Your task to perform on an android device: change timer sound Image 0: 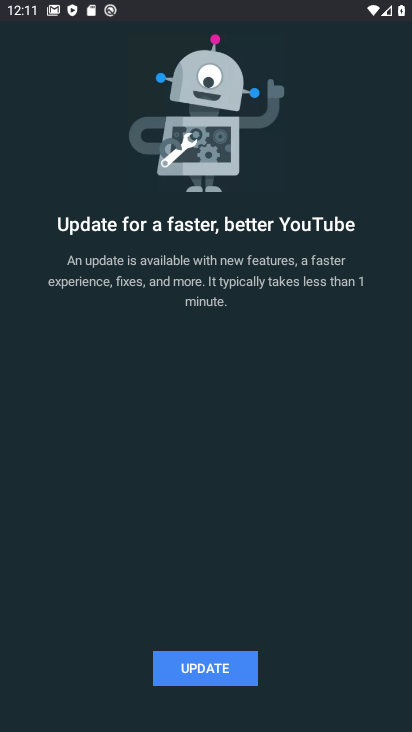
Step 0: press home button
Your task to perform on an android device: change timer sound Image 1: 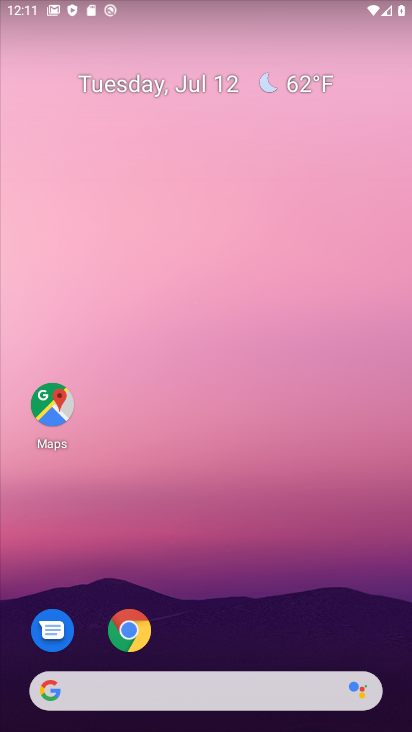
Step 1: drag from (164, 435) to (164, 190)
Your task to perform on an android device: change timer sound Image 2: 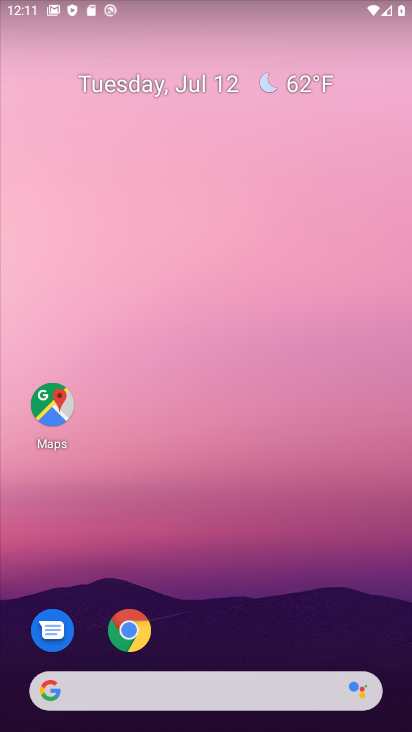
Step 2: drag from (263, 519) to (246, 160)
Your task to perform on an android device: change timer sound Image 3: 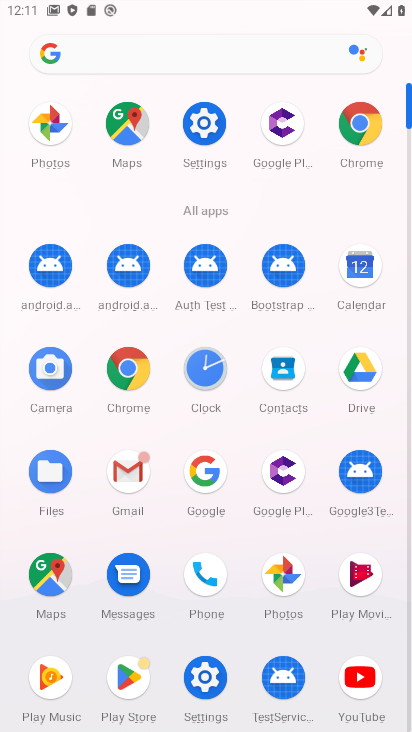
Step 3: click (208, 380)
Your task to perform on an android device: change timer sound Image 4: 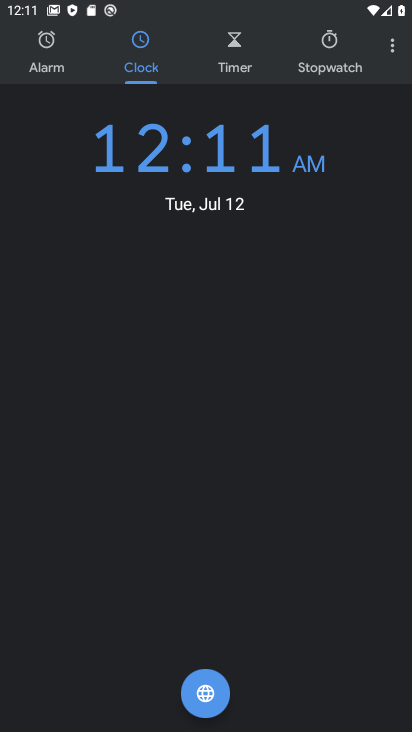
Step 4: click (393, 43)
Your task to perform on an android device: change timer sound Image 5: 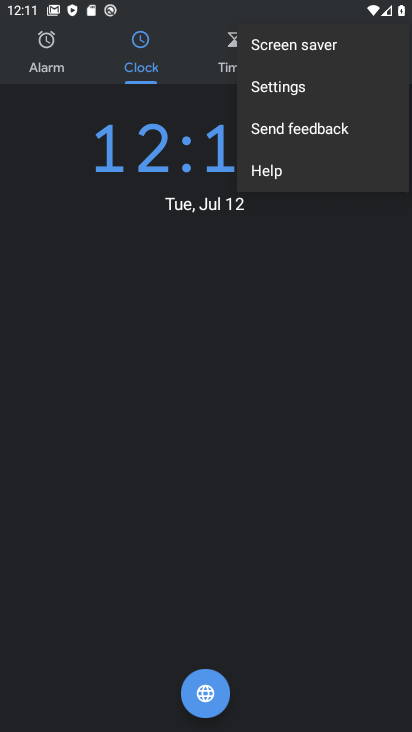
Step 5: click (290, 91)
Your task to perform on an android device: change timer sound Image 6: 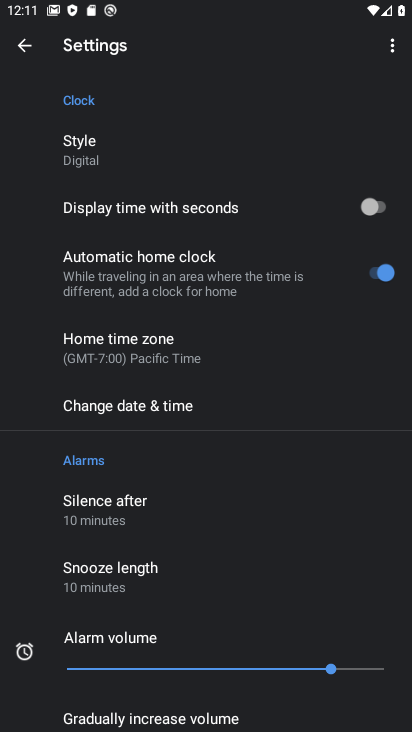
Step 6: drag from (183, 570) to (200, 292)
Your task to perform on an android device: change timer sound Image 7: 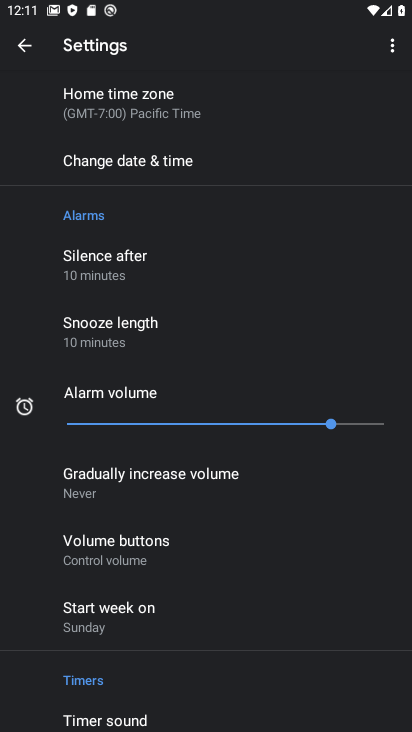
Step 7: click (120, 706)
Your task to perform on an android device: change timer sound Image 8: 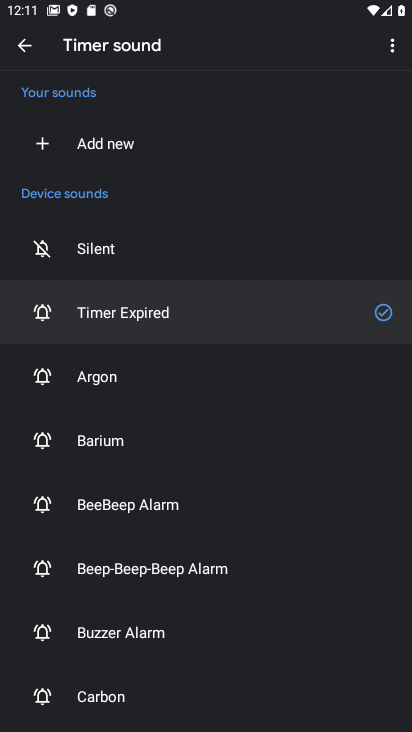
Step 8: click (102, 382)
Your task to perform on an android device: change timer sound Image 9: 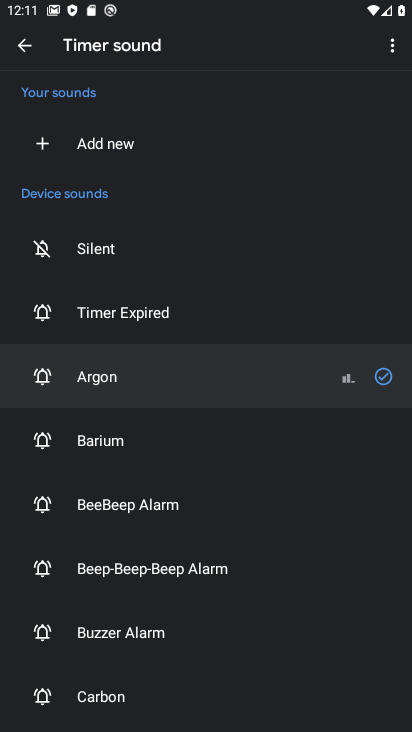
Step 9: task complete